Your task to perform on an android device: toggle improve location accuracy Image 0: 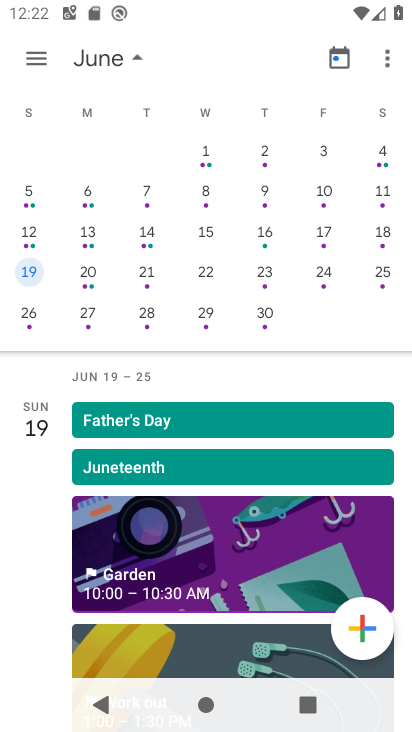
Step 0: press home button
Your task to perform on an android device: toggle improve location accuracy Image 1: 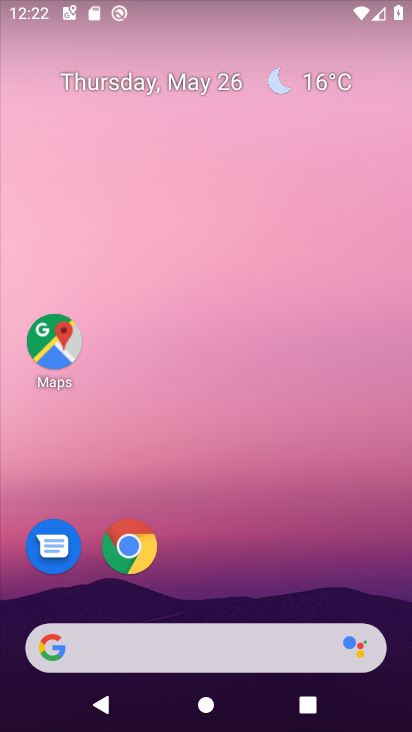
Step 1: drag from (187, 545) to (277, 199)
Your task to perform on an android device: toggle improve location accuracy Image 2: 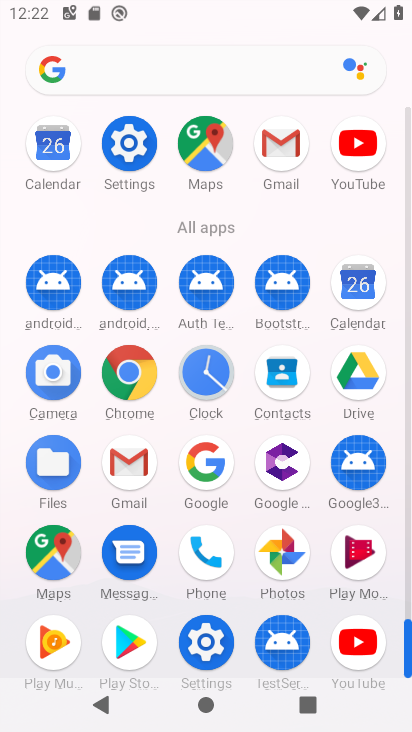
Step 2: click (129, 144)
Your task to perform on an android device: toggle improve location accuracy Image 3: 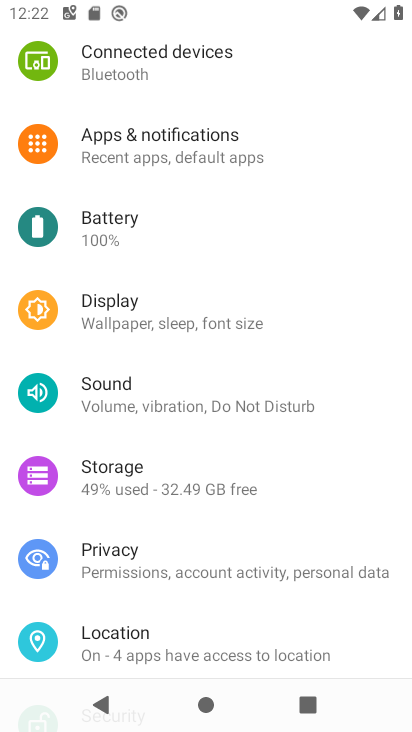
Step 3: click (112, 645)
Your task to perform on an android device: toggle improve location accuracy Image 4: 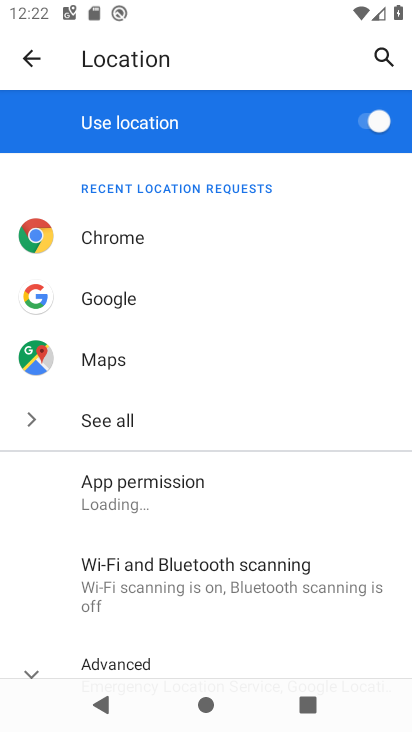
Step 4: drag from (97, 613) to (214, 230)
Your task to perform on an android device: toggle improve location accuracy Image 5: 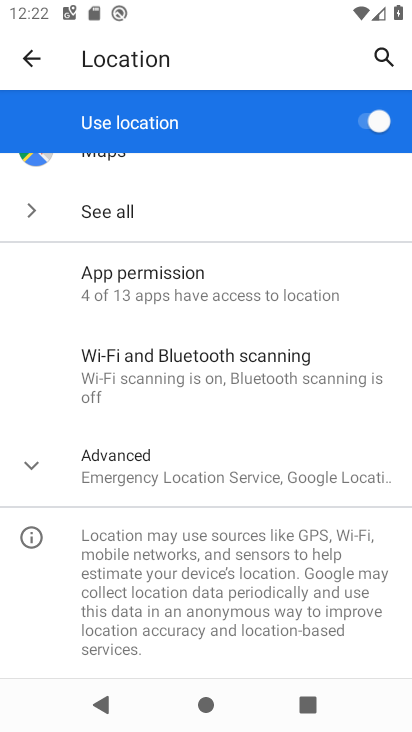
Step 5: click (38, 456)
Your task to perform on an android device: toggle improve location accuracy Image 6: 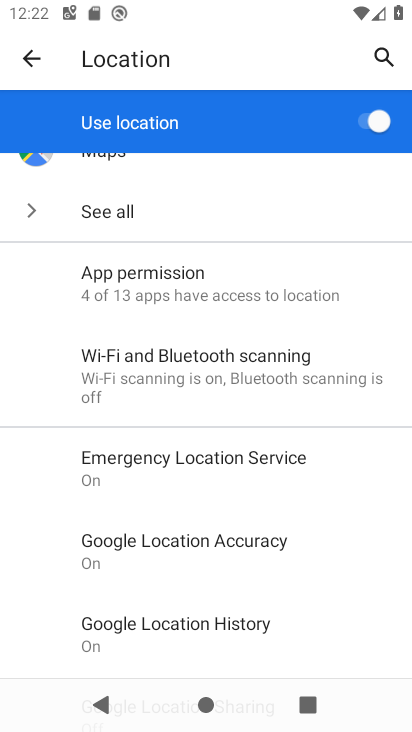
Step 6: click (145, 543)
Your task to perform on an android device: toggle improve location accuracy Image 7: 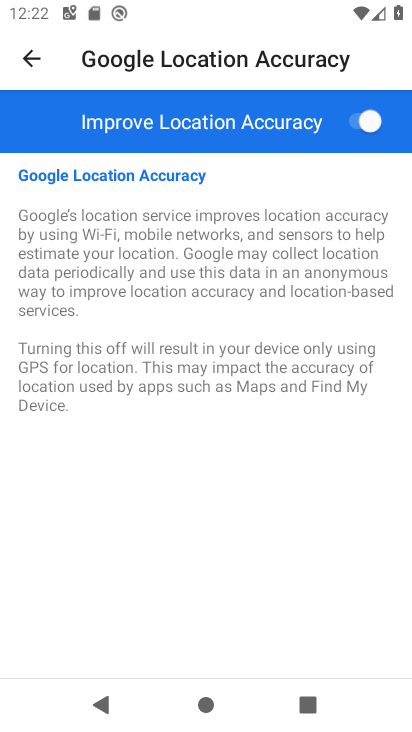
Step 7: click (353, 122)
Your task to perform on an android device: toggle improve location accuracy Image 8: 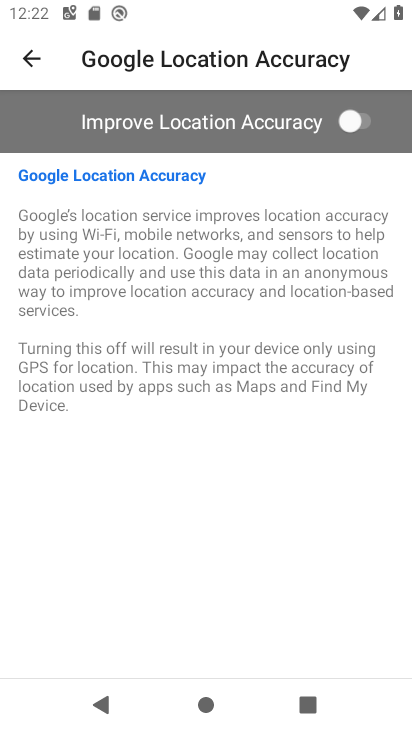
Step 8: task complete